Your task to perform on an android device: set the stopwatch Image 0: 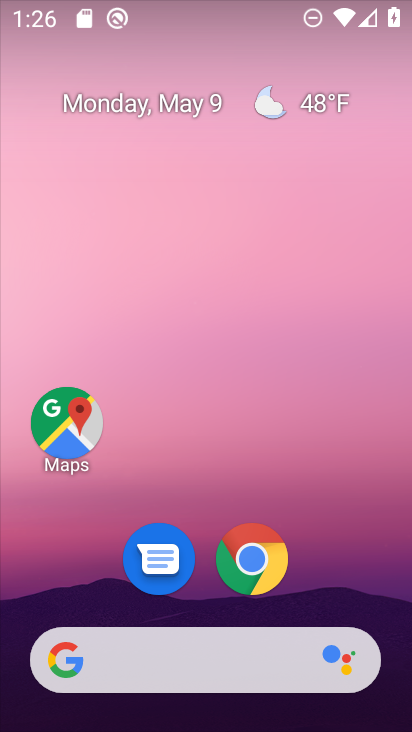
Step 0: drag from (181, 600) to (258, 186)
Your task to perform on an android device: set the stopwatch Image 1: 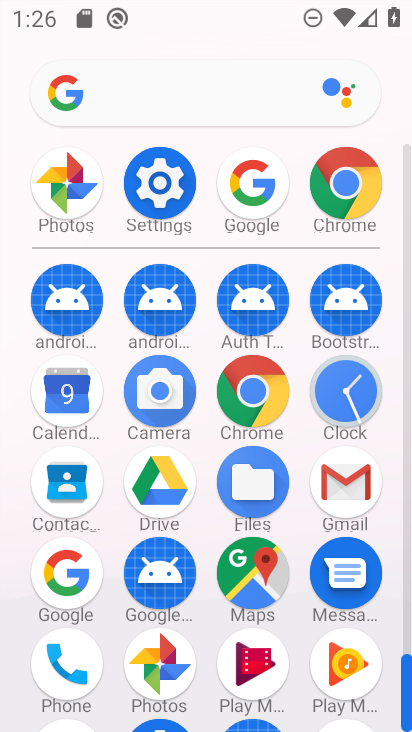
Step 1: click (363, 386)
Your task to perform on an android device: set the stopwatch Image 2: 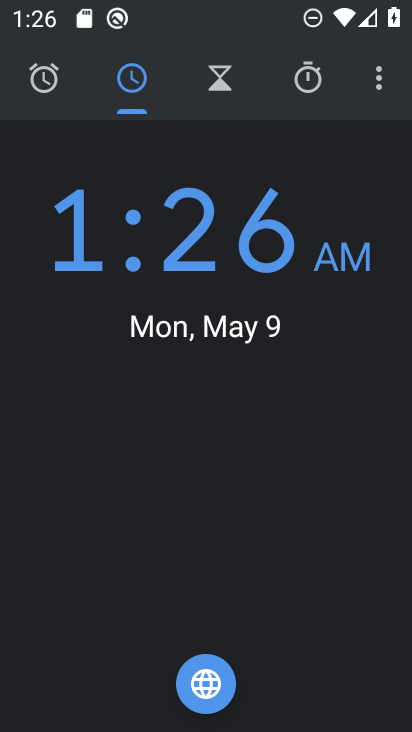
Step 2: click (371, 68)
Your task to perform on an android device: set the stopwatch Image 3: 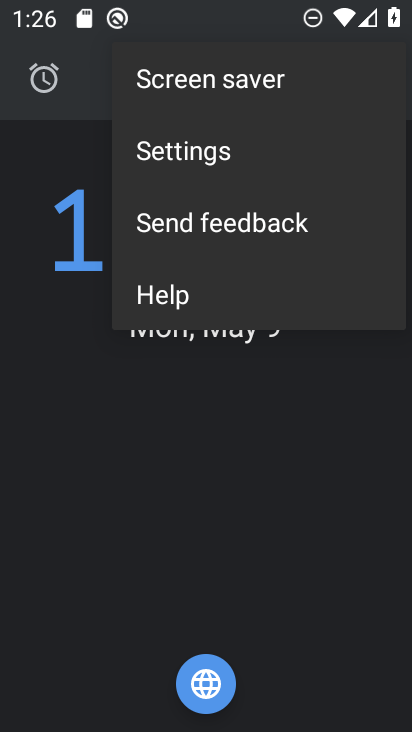
Step 3: click (209, 148)
Your task to perform on an android device: set the stopwatch Image 4: 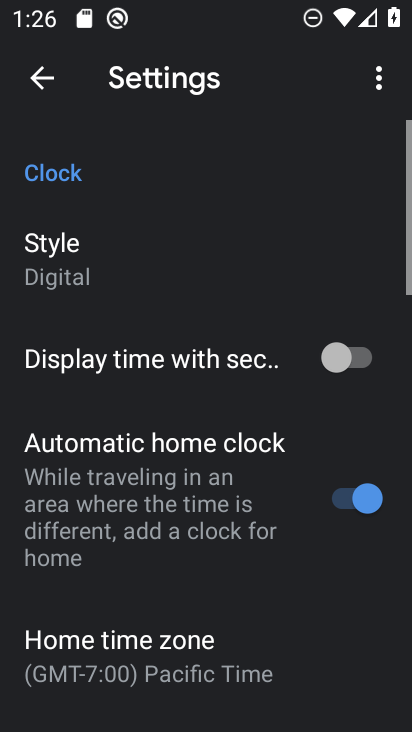
Step 4: click (61, 83)
Your task to perform on an android device: set the stopwatch Image 5: 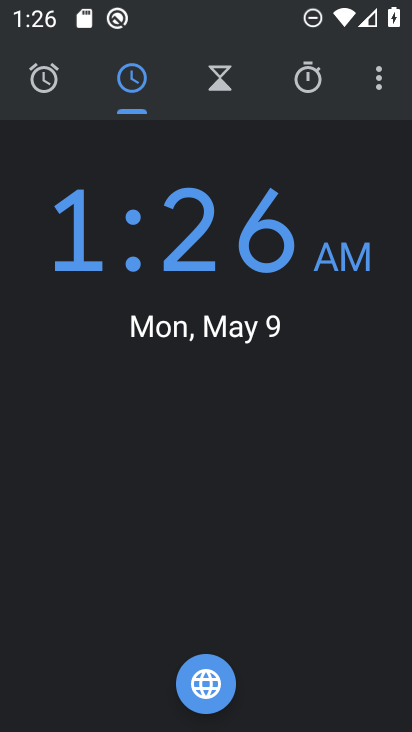
Step 5: click (324, 91)
Your task to perform on an android device: set the stopwatch Image 6: 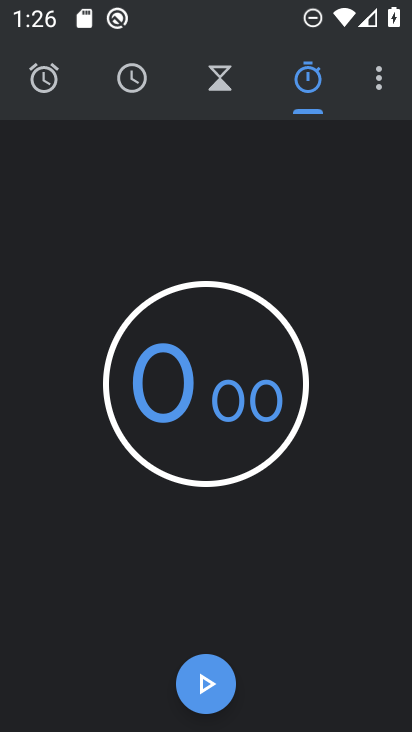
Step 6: click (198, 679)
Your task to perform on an android device: set the stopwatch Image 7: 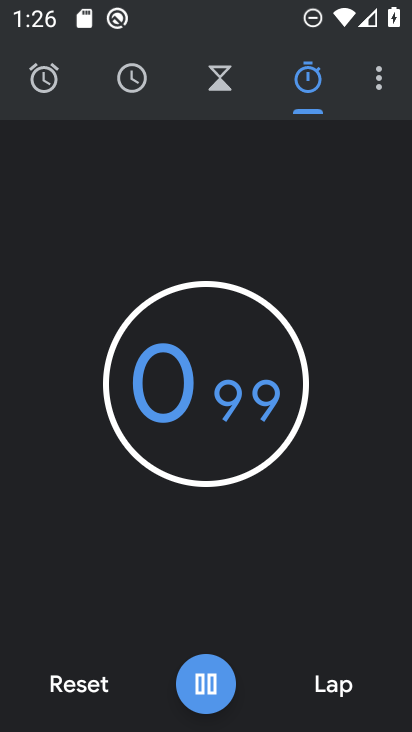
Step 7: task complete